Your task to perform on an android device: Search for "razer deathadder" on bestbuy.com, select the first entry, add it to the cart, then select checkout. Image 0: 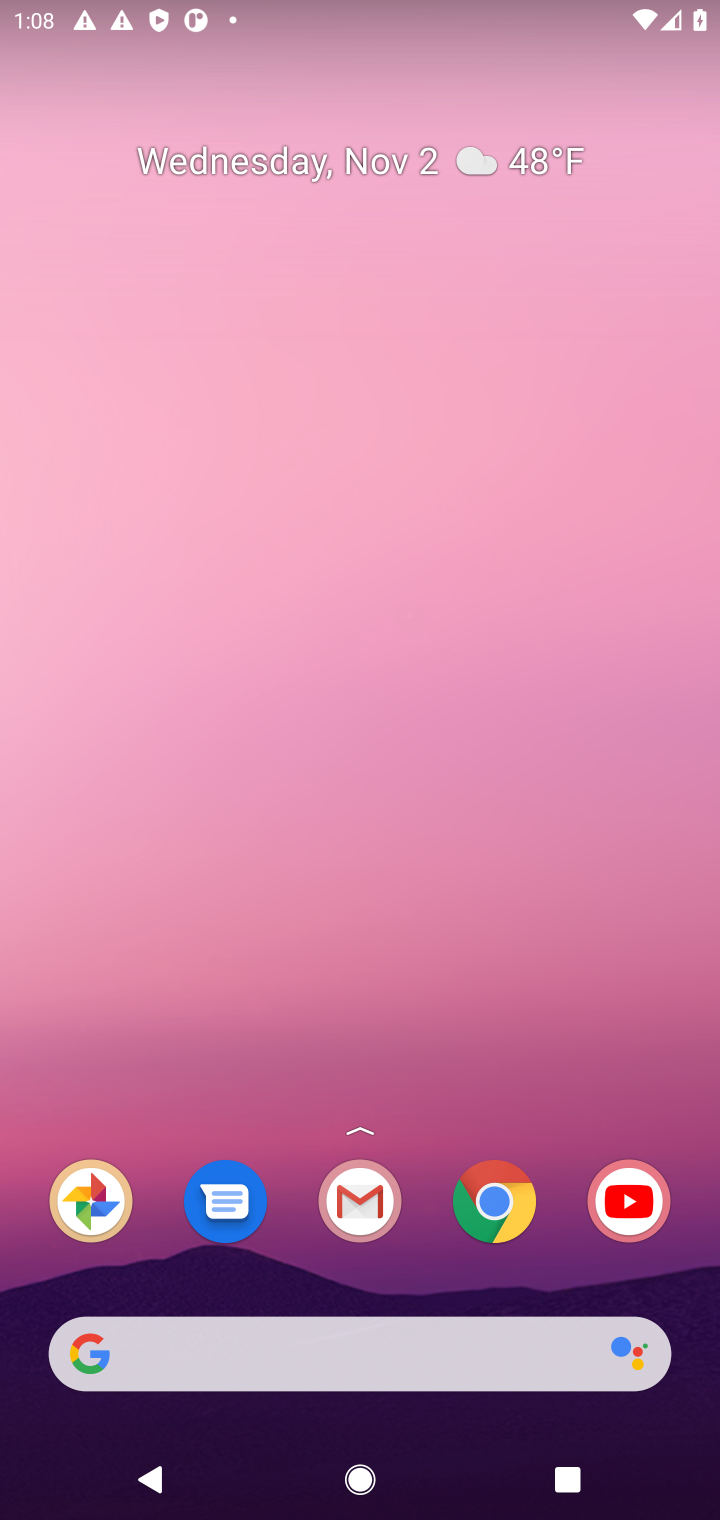
Step 0: click (520, 1221)
Your task to perform on an android device: Search for "razer deathadder" on bestbuy.com, select the first entry, add it to the cart, then select checkout. Image 1: 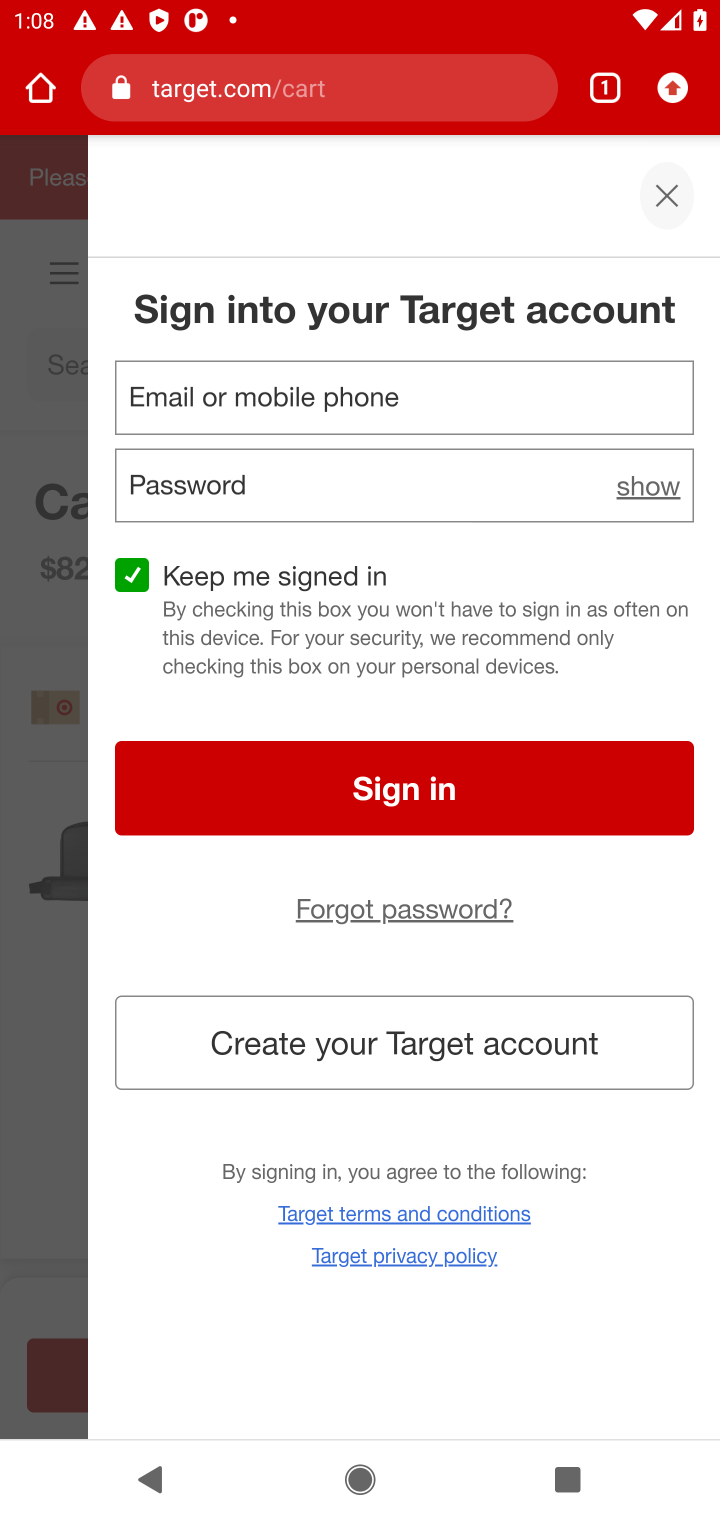
Step 1: click (392, 79)
Your task to perform on an android device: Search for "razer deathadder" on bestbuy.com, select the first entry, add it to the cart, then select checkout. Image 2: 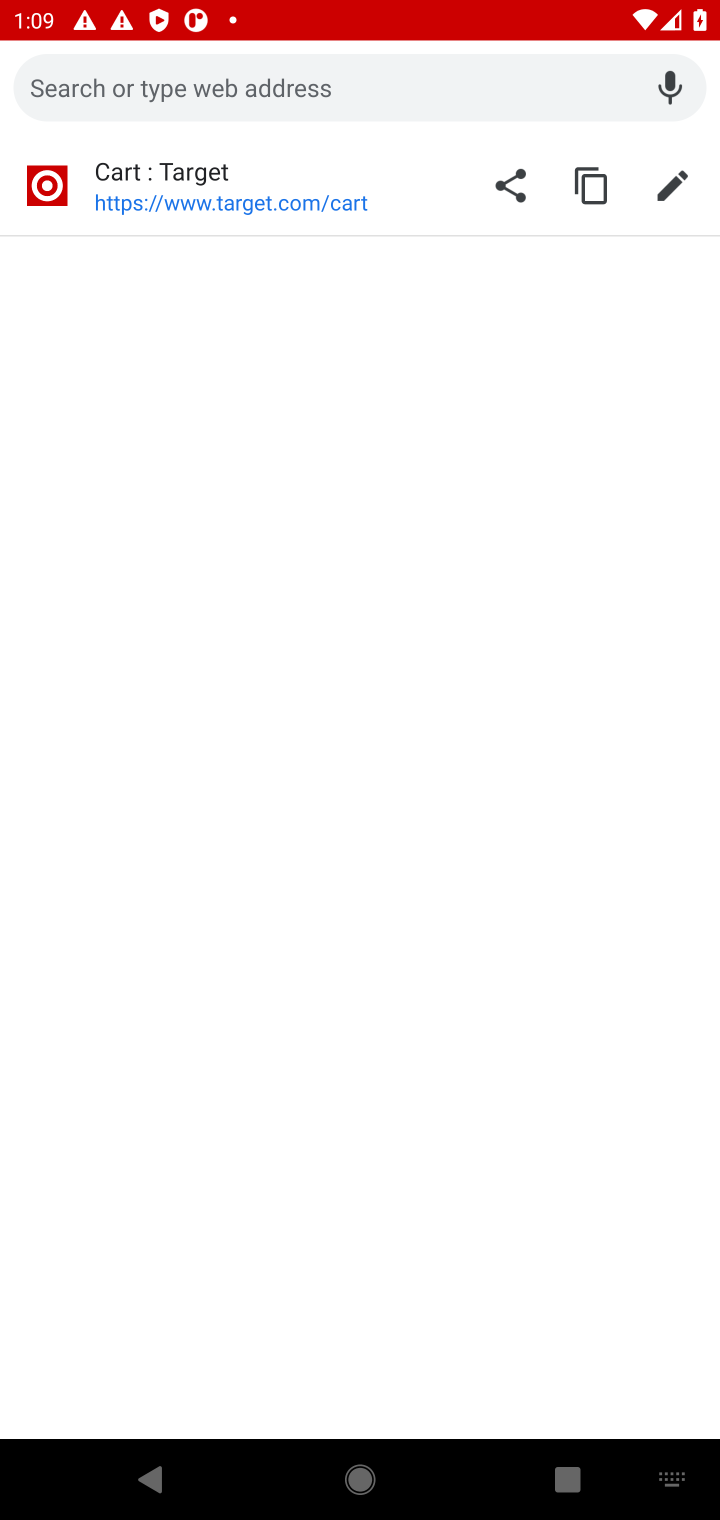
Step 2: press enter
Your task to perform on an android device: Search for "razer deathadder" on bestbuy.com, select the first entry, add it to the cart, then select checkout. Image 3: 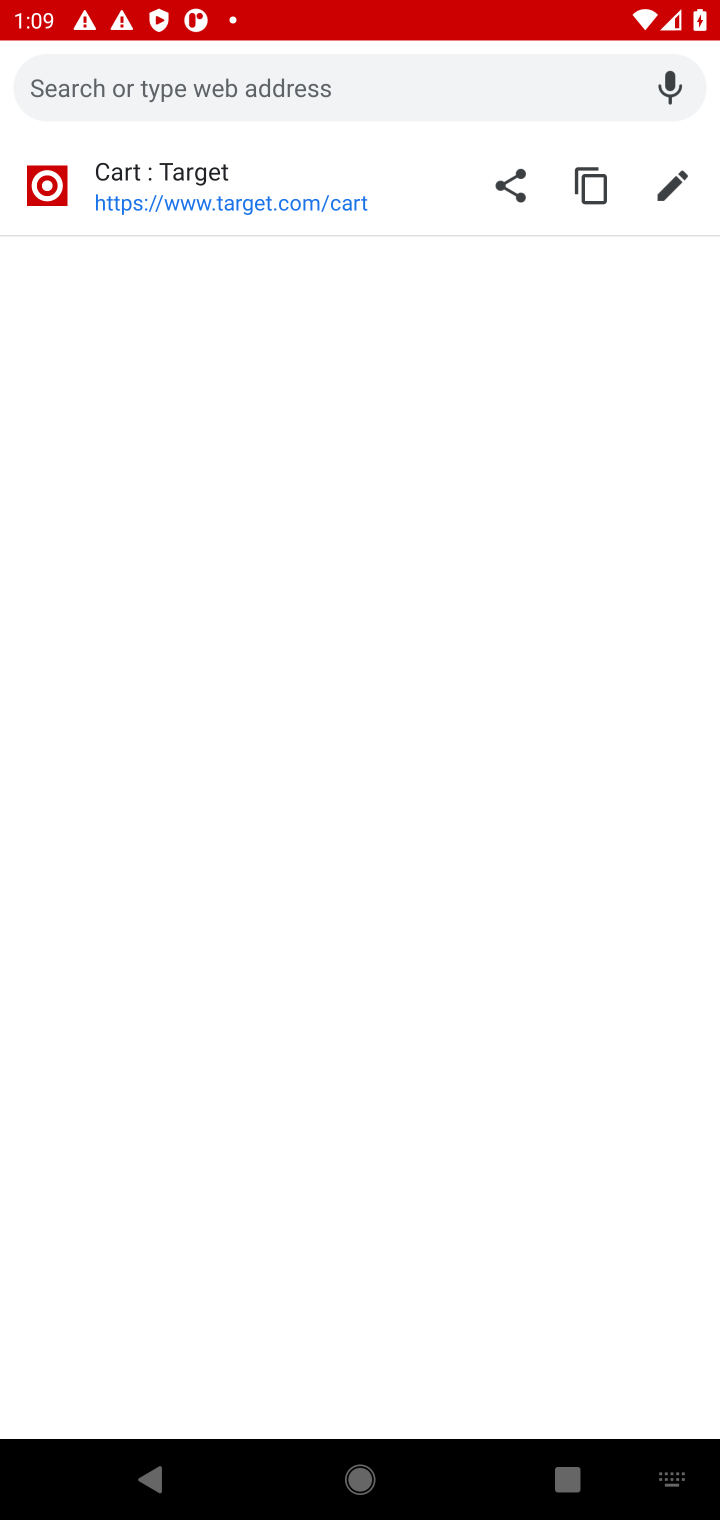
Step 3: type " bestbuy.com"
Your task to perform on an android device: Search for "razer deathadder" on bestbuy.com, select the first entry, add it to the cart, then select checkout. Image 4: 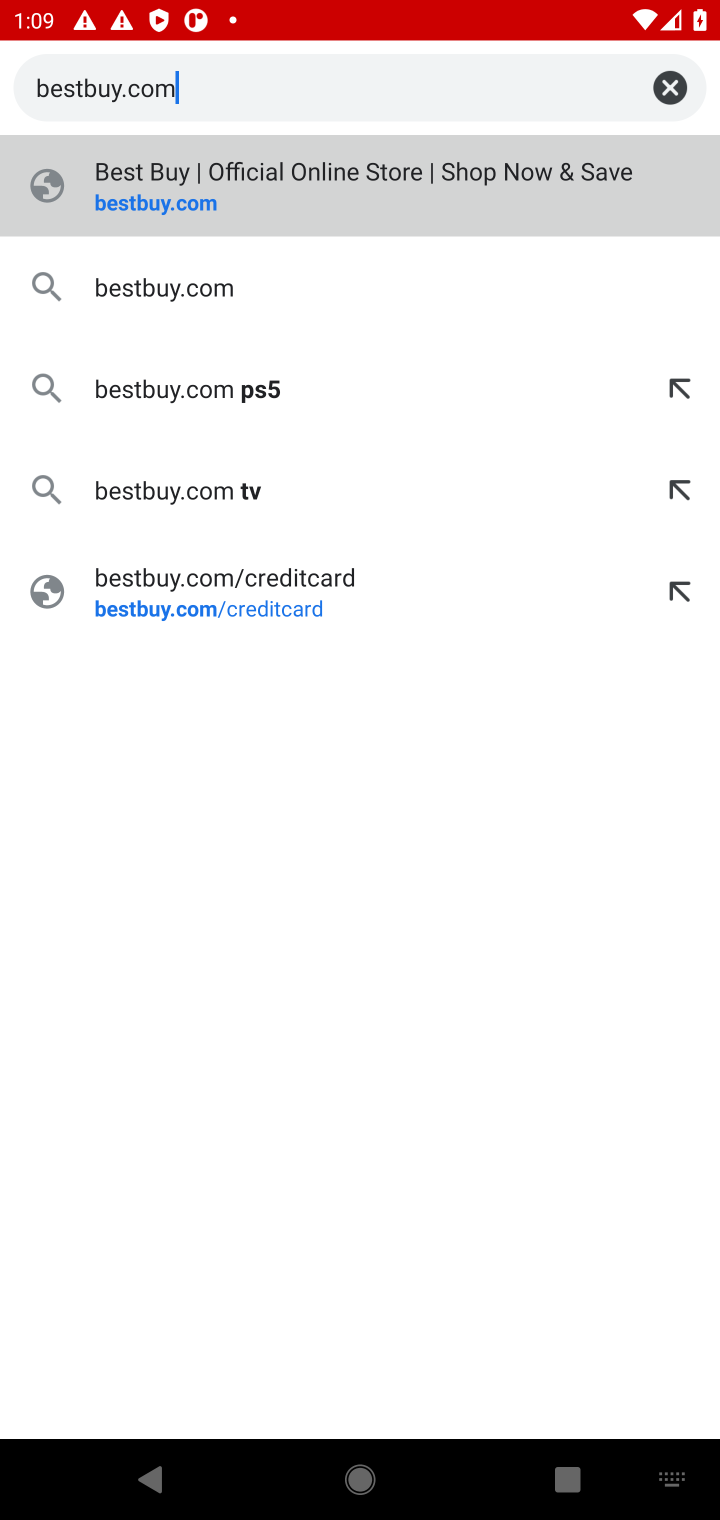
Step 4: click (198, 295)
Your task to perform on an android device: Search for "razer deathadder" on bestbuy.com, select the first entry, add it to the cart, then select checkout. Image 5: 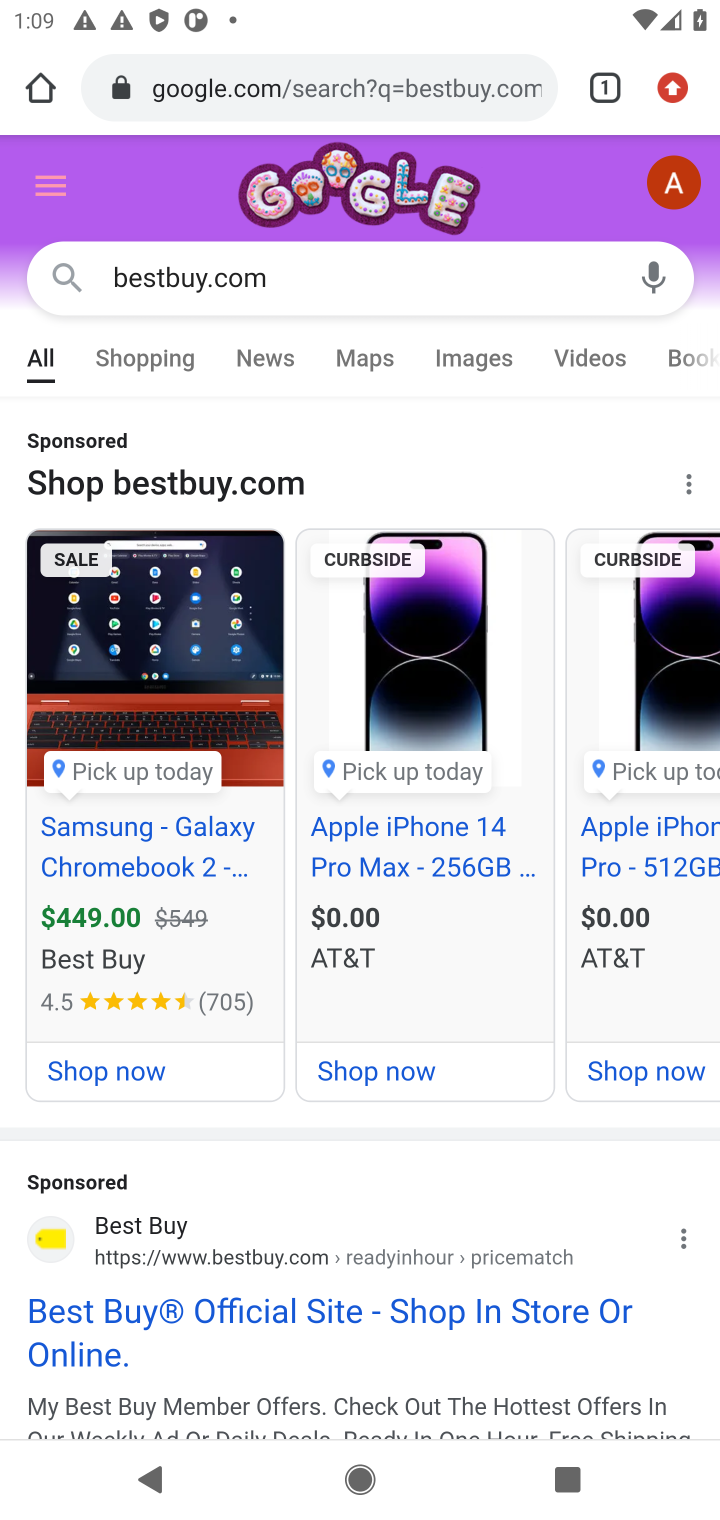
Step 5: click (122, 1214)
Your task to perform on an android device: Search for "razer deathadder" on bestbuy.com, select the first entry, add it to the cart, then select checkout. Image 6: 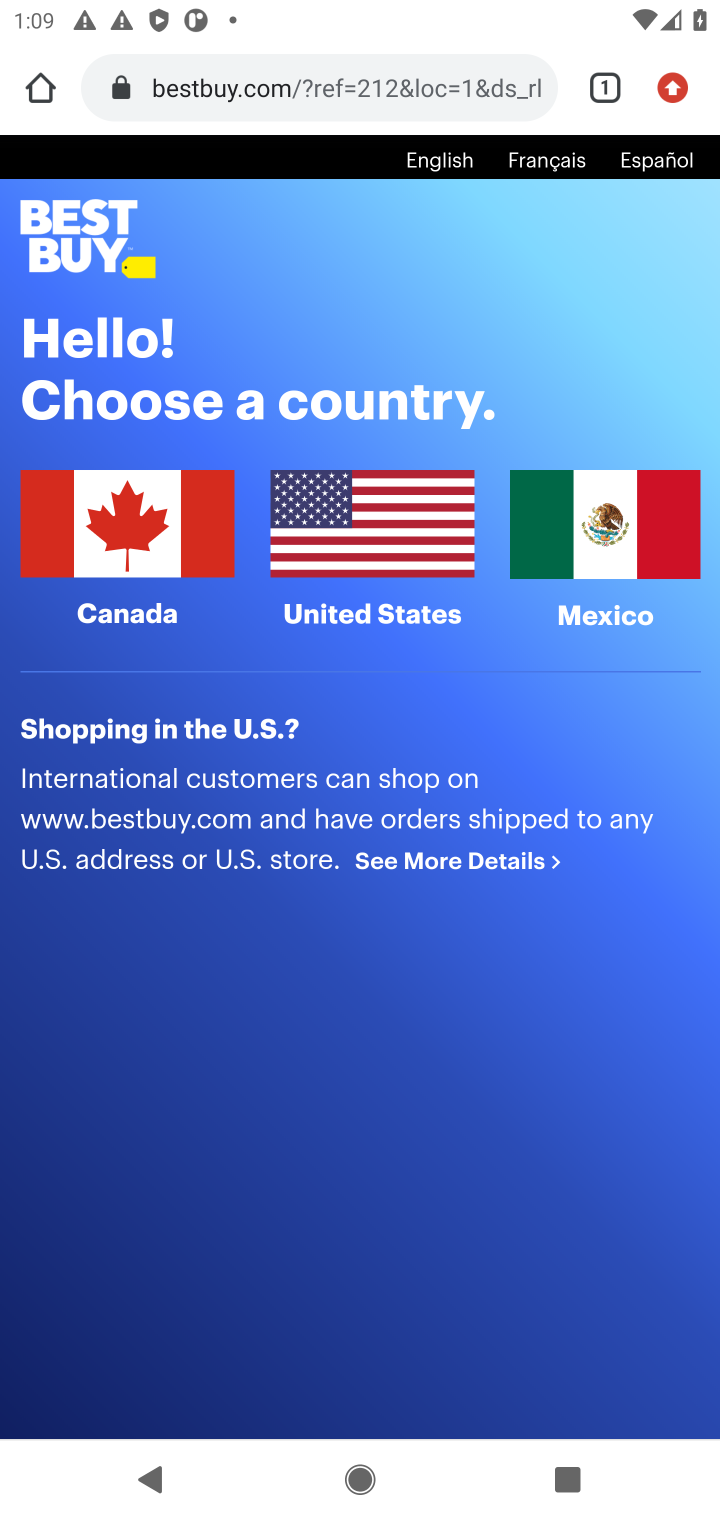
Step 6: click (335, 544)
Your task to perform on an android device: Search for "razer deathadder" on bestbuy.com, select the first entry, add it to the cart, then select checkout. Image 7: 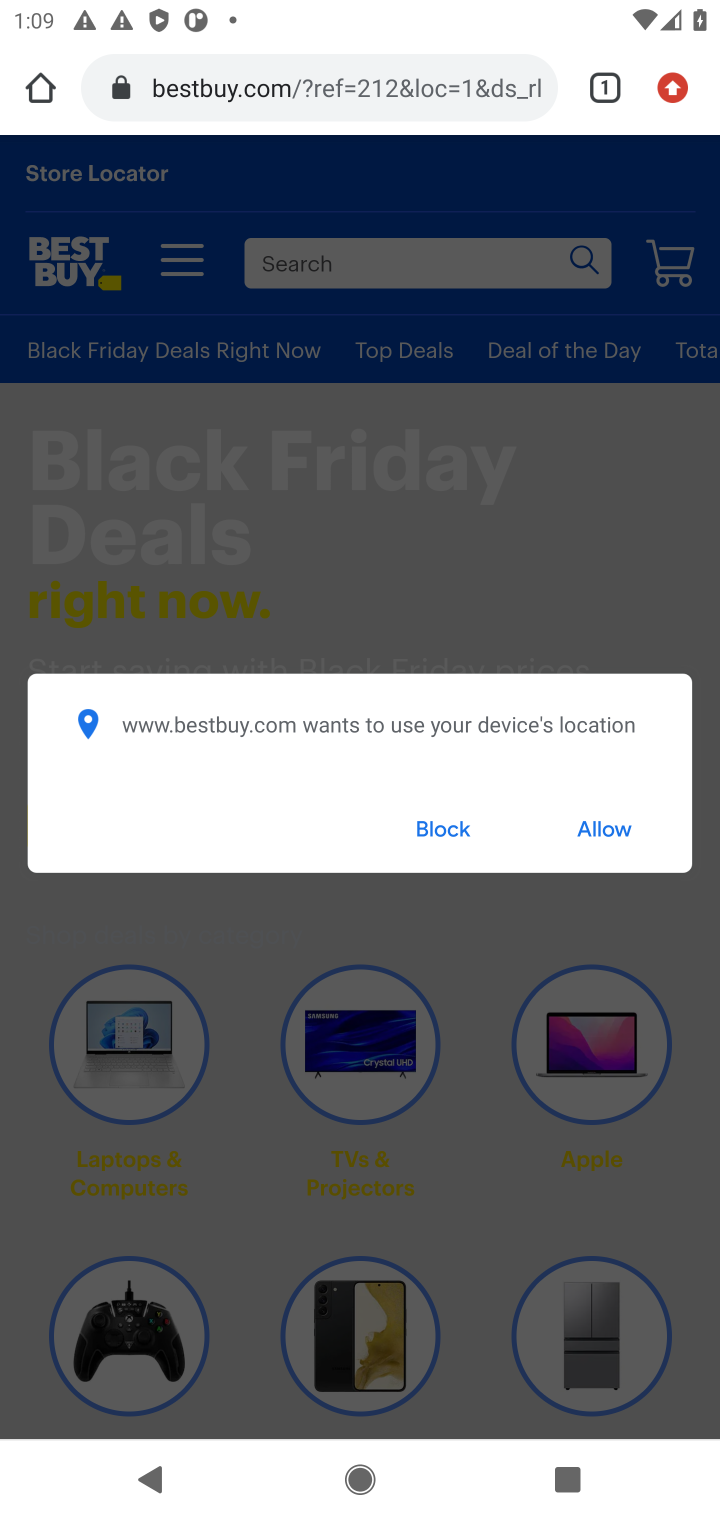
Step 7: click (463, 834)
Your task to perform on an android device: Search for "razer deathadder" on bestbuy.com, select the first entry, add it to the cart, then select checkout. Image 8: 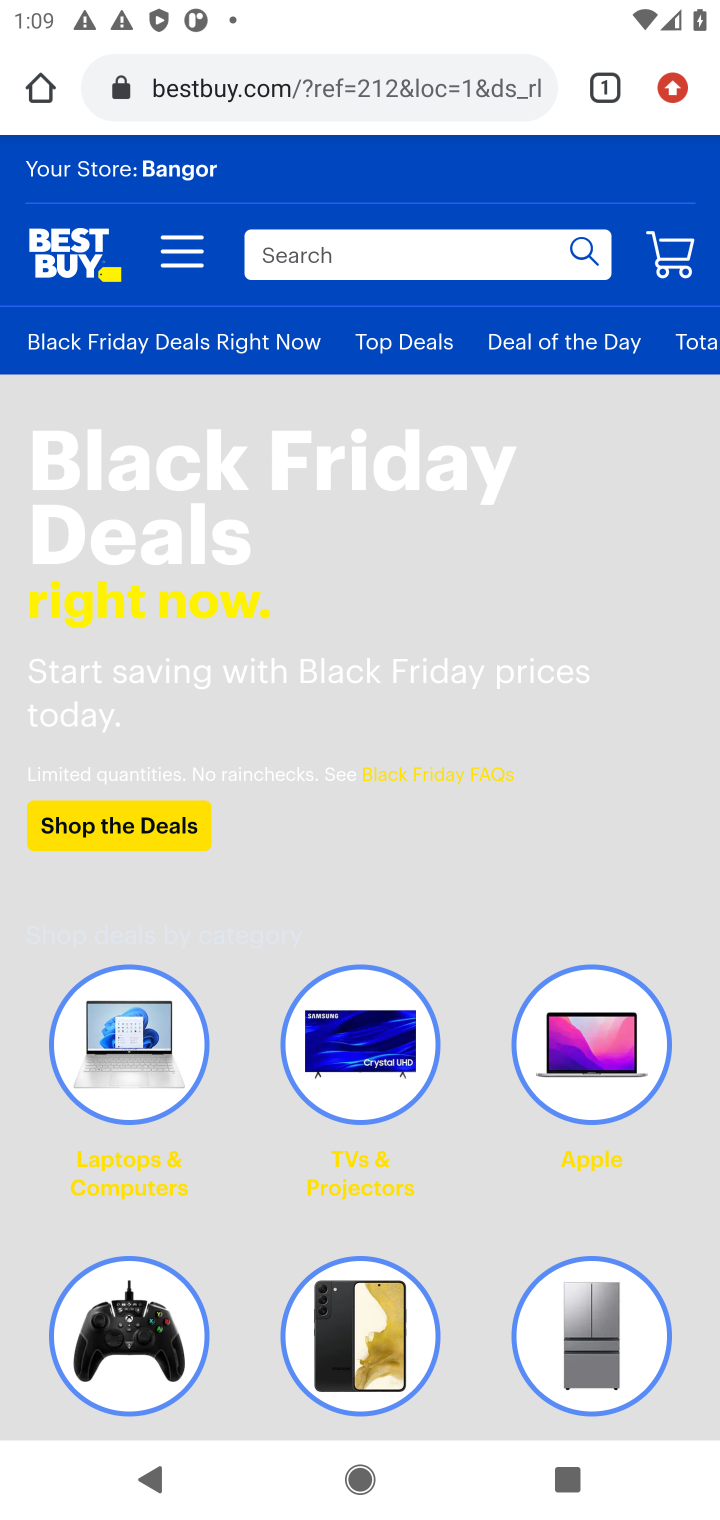
Step 8: click (381, 272)
Your task to perform on an android device: Search for "razer deathadder" on bestbuy.com, select the first entry, add it to the cart, then select checkout. Image 9: 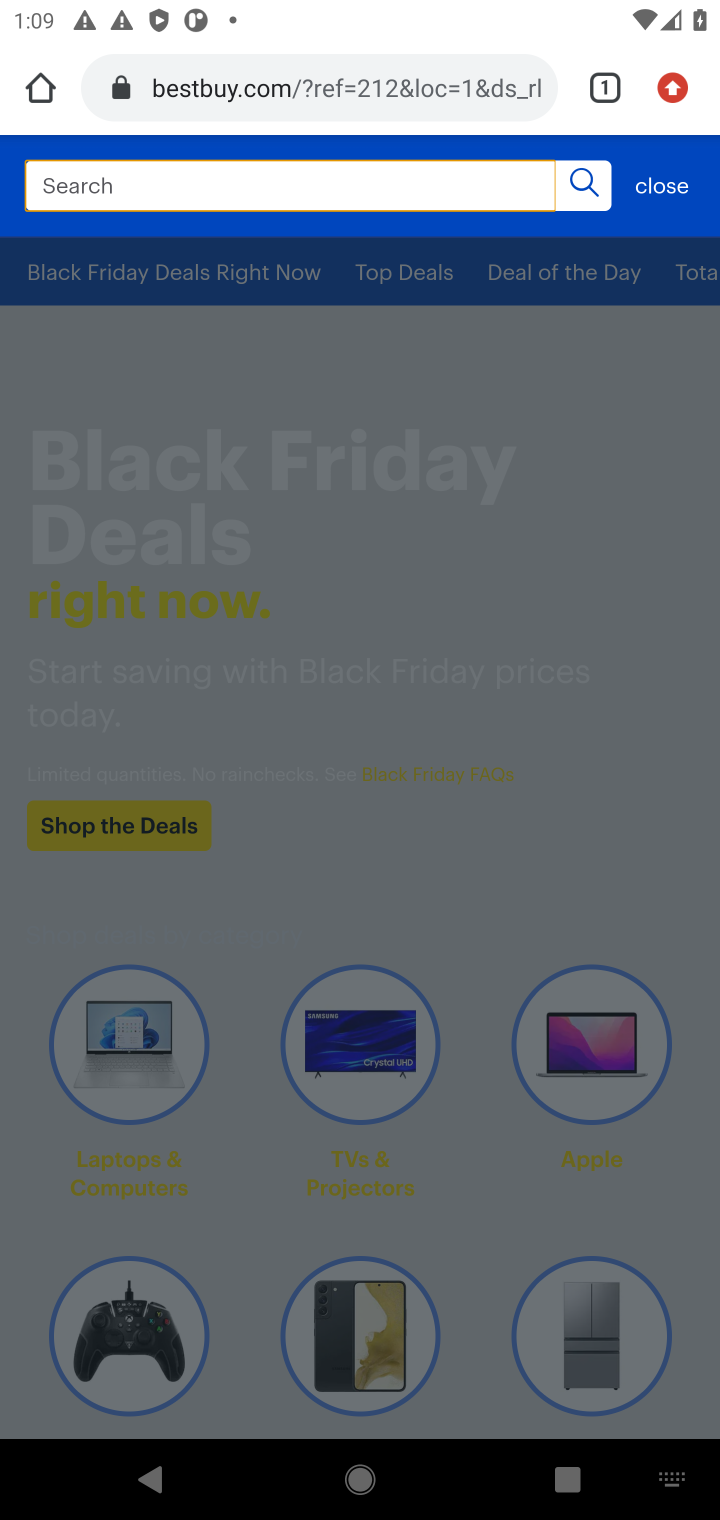
Step 9: press enter
Your task to perform on an android device: Search for "razer deathadder" on bestbuy.com, select the first entry, add it to the cart, then select checkout. Image 10: 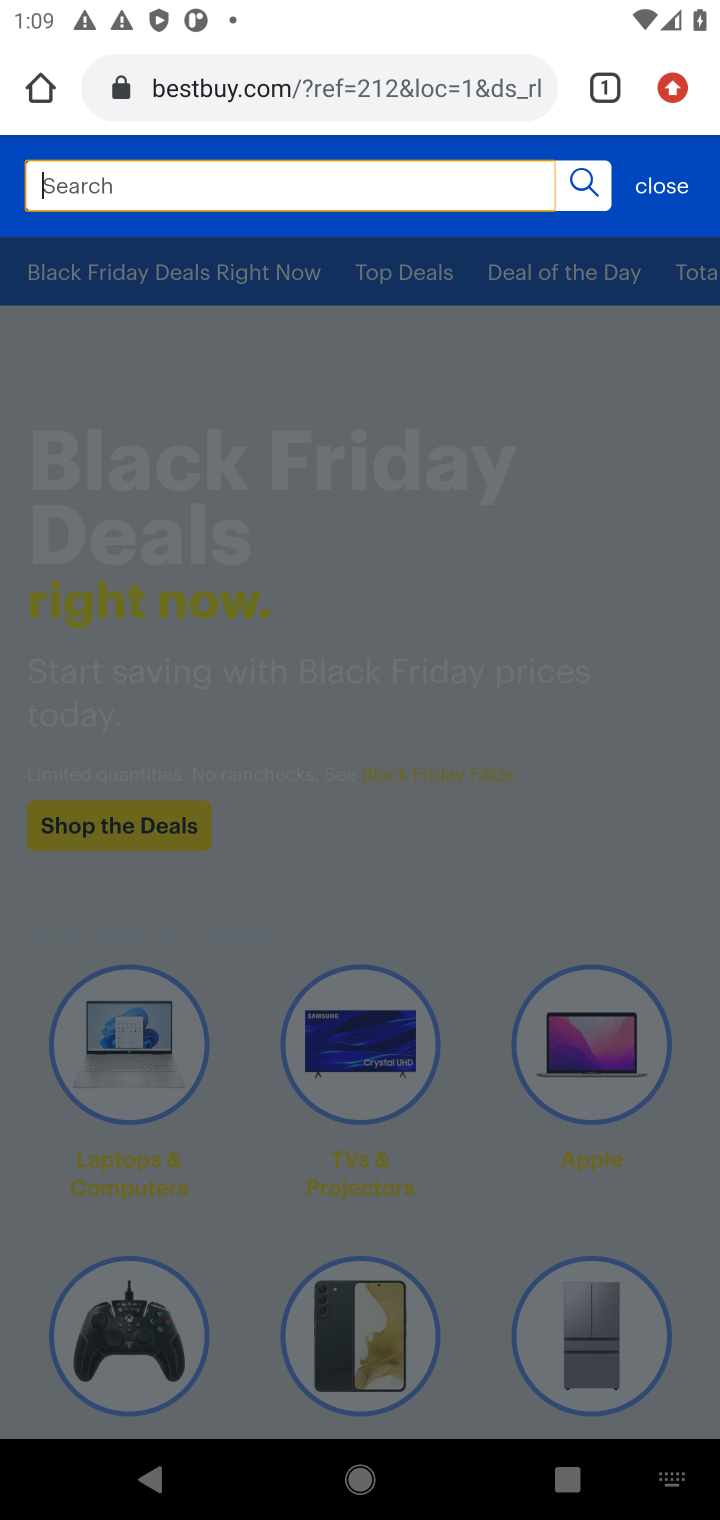
Step 10: type "razer deathadder"
Your task to perform on an android device: Search for "razer deathadder" on bestbuy.com, select the first entry, add it to the cart, then select checkout. Image 11: 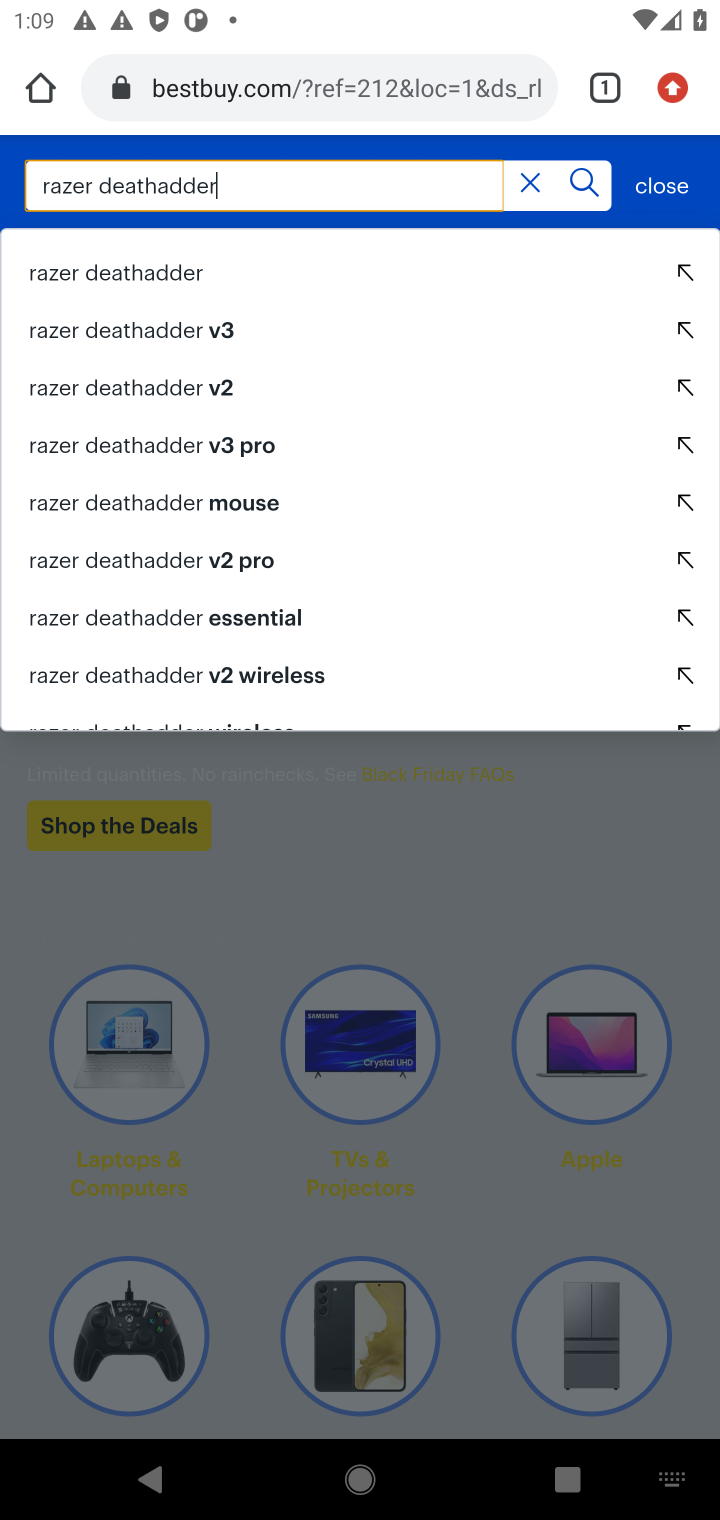
Step 11: click (107, 264)
Your task to perform on an android device: Search for "razer deathadder" on bestbuy.com, select the first entry, add it to the cart, then select checkout. Image 12: 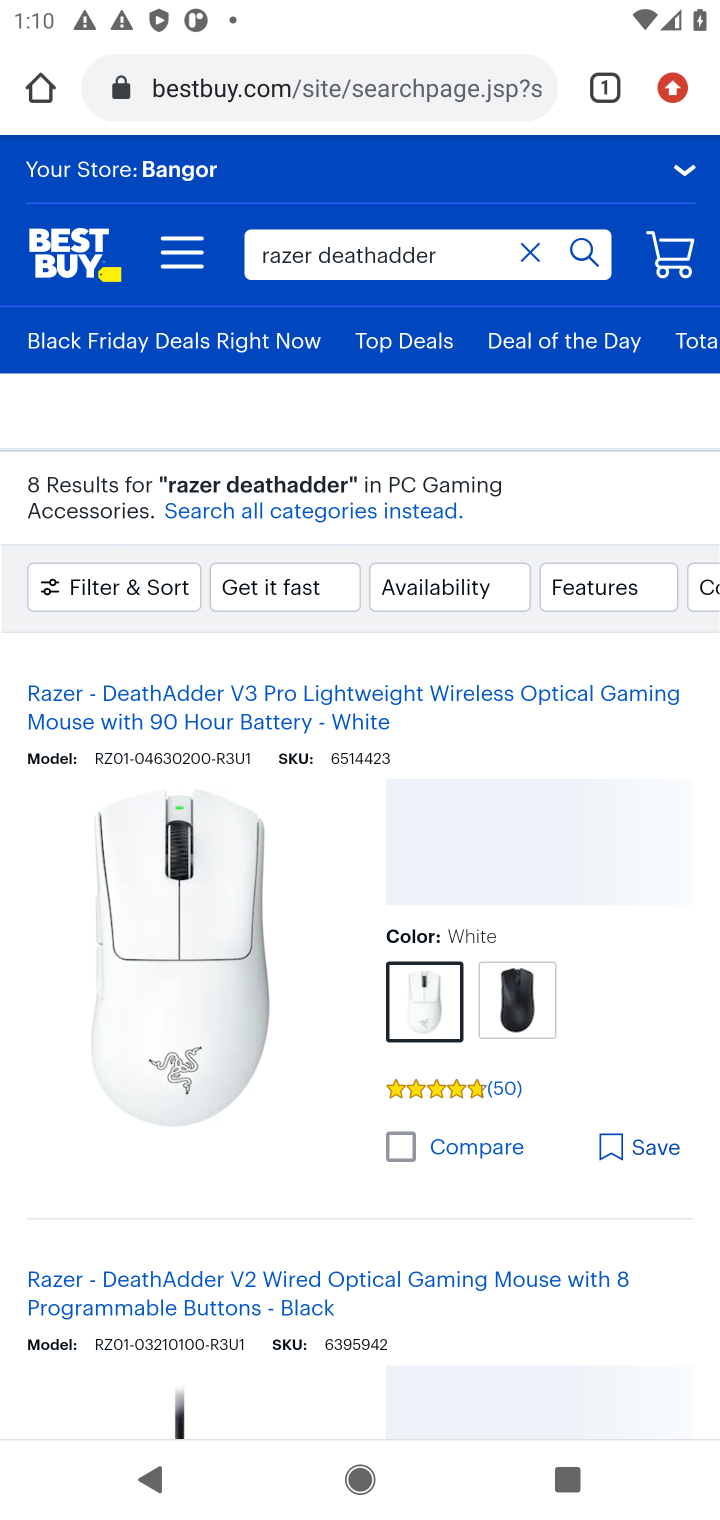
Step 12: click (294, 710)
Your task to perform on an android device: Search for "razer deathadder" on bestbuy.com, select the first entry, add it to the cart, then select checkout. Image 13: 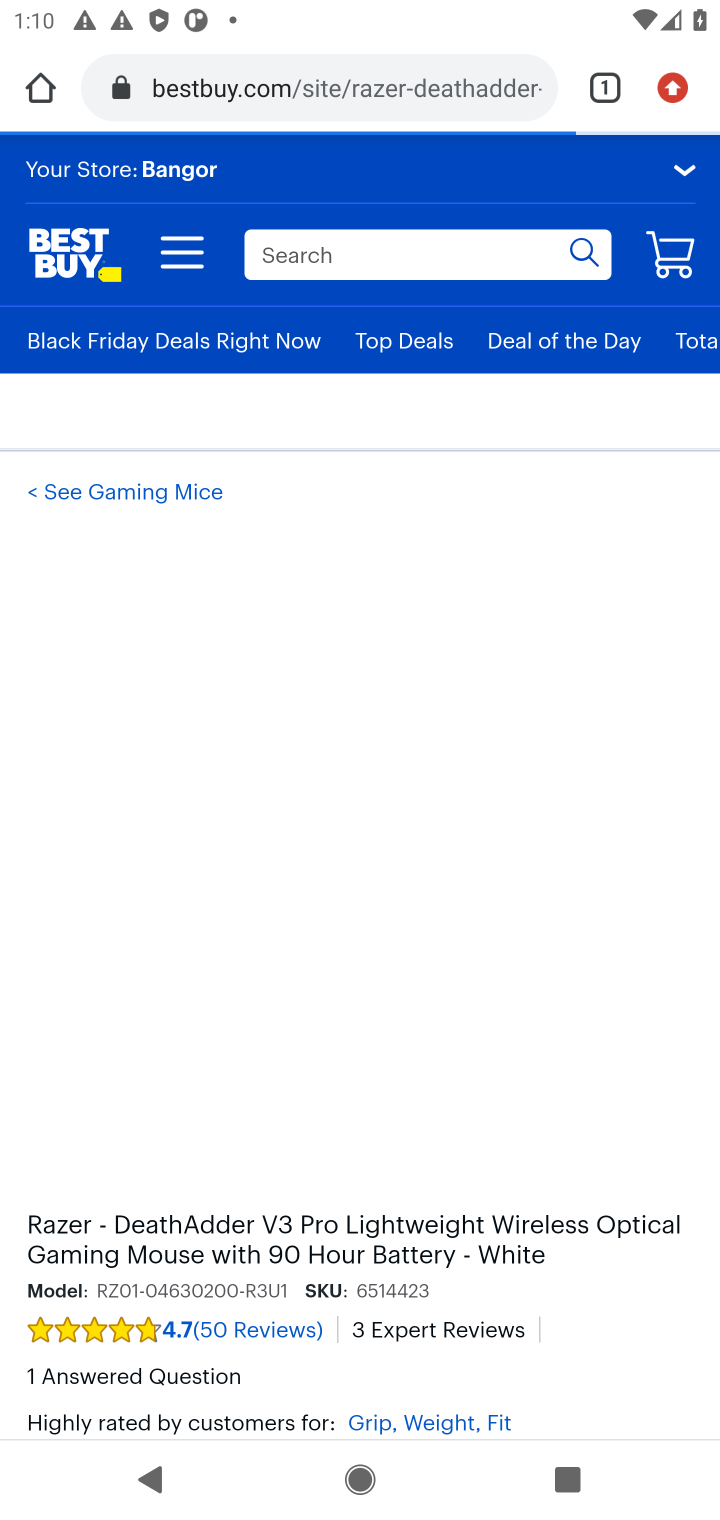
Step 13: drag from (468, 1164) to (437, 525)
Your task to perform on an android device: Search for "razer deathadder" on bestbuy.com, select the first entry, add it to the cart, then select checkout. Image 14: 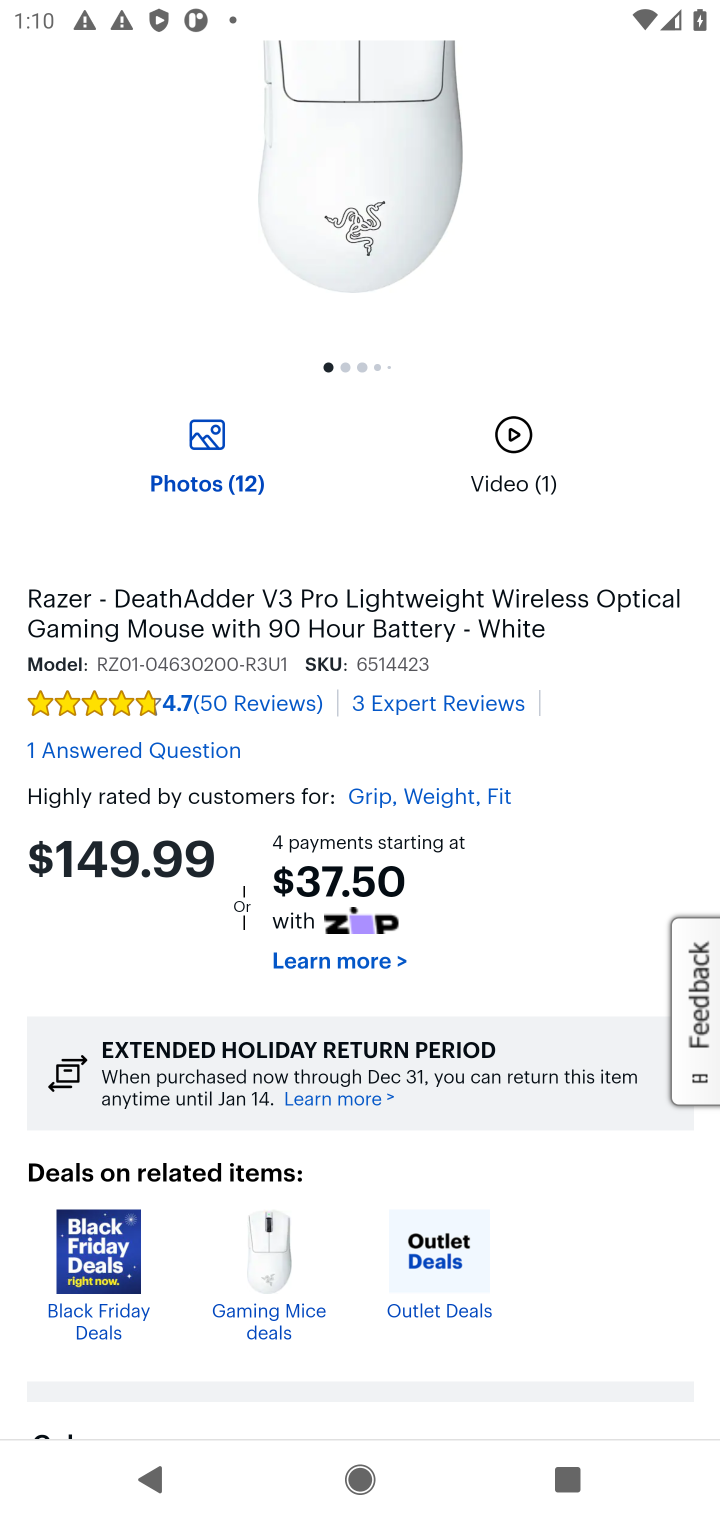
Step 14: drag from (577, 1015) to (556, 577)
Your task to perform on an android device: Search for "razer deathadder" on bestbuy.com, select the first entry, add it to the cart, then select checkout. Image 15: 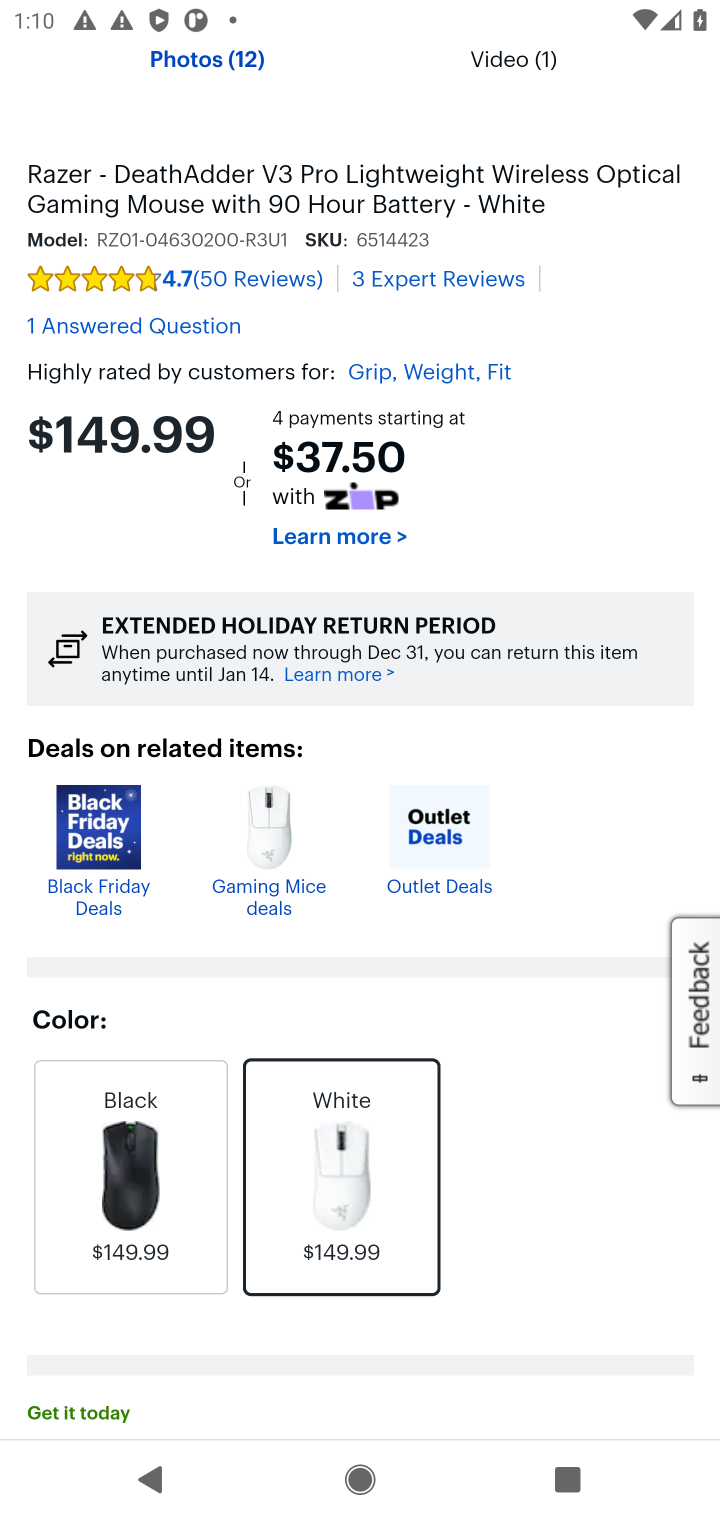
Step 15: drag from (506, 877) to (523, 715)
Your task to perform on an android device: Search for "razer deathadder" on bestbuy.com, select the first entry, add it to the cart, then select checkout. Image 16: 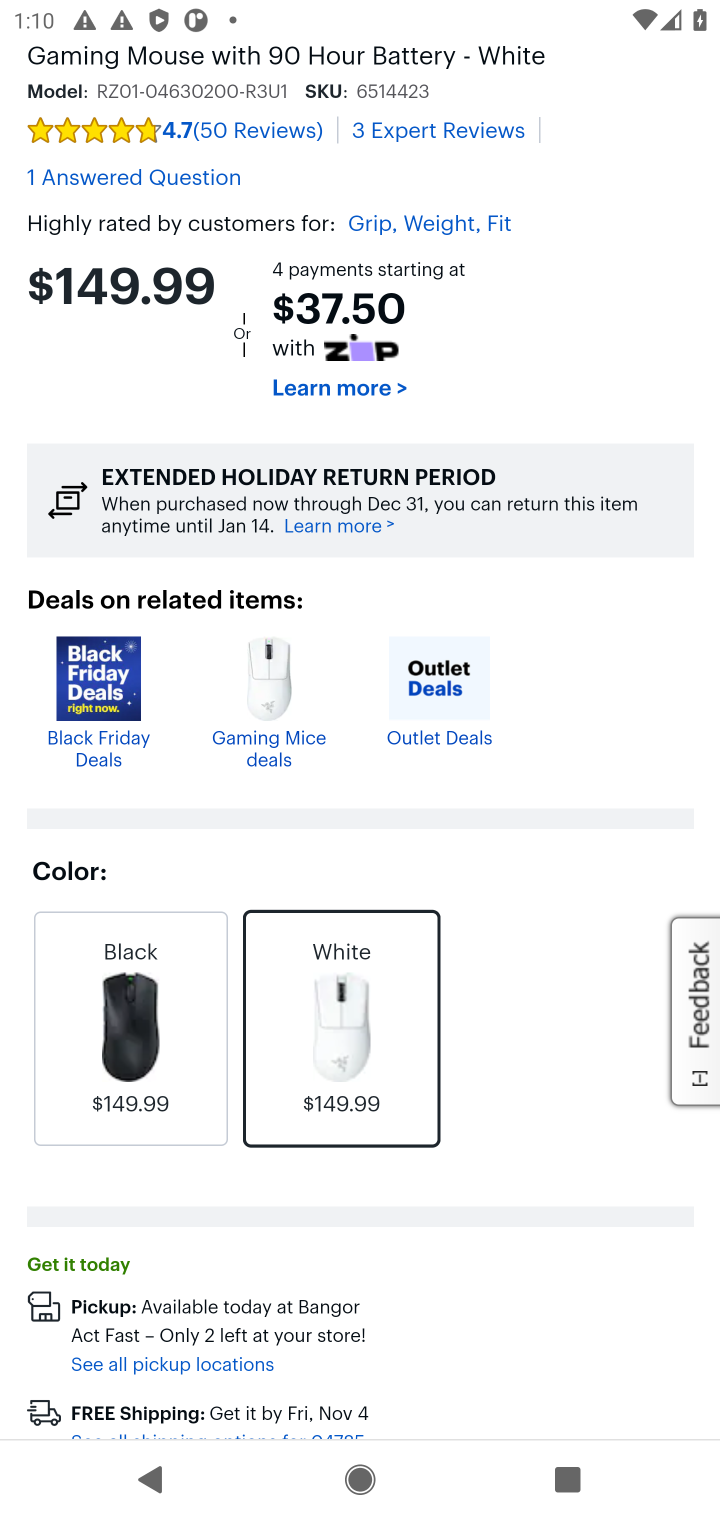
Step 16: drag from (532, 607) to (548, 519)
Your task to perform on an android device: Search for "razer deathadder" on bestbuy.com, select the first entry, add it to the cart, then select checkout. Image 17: 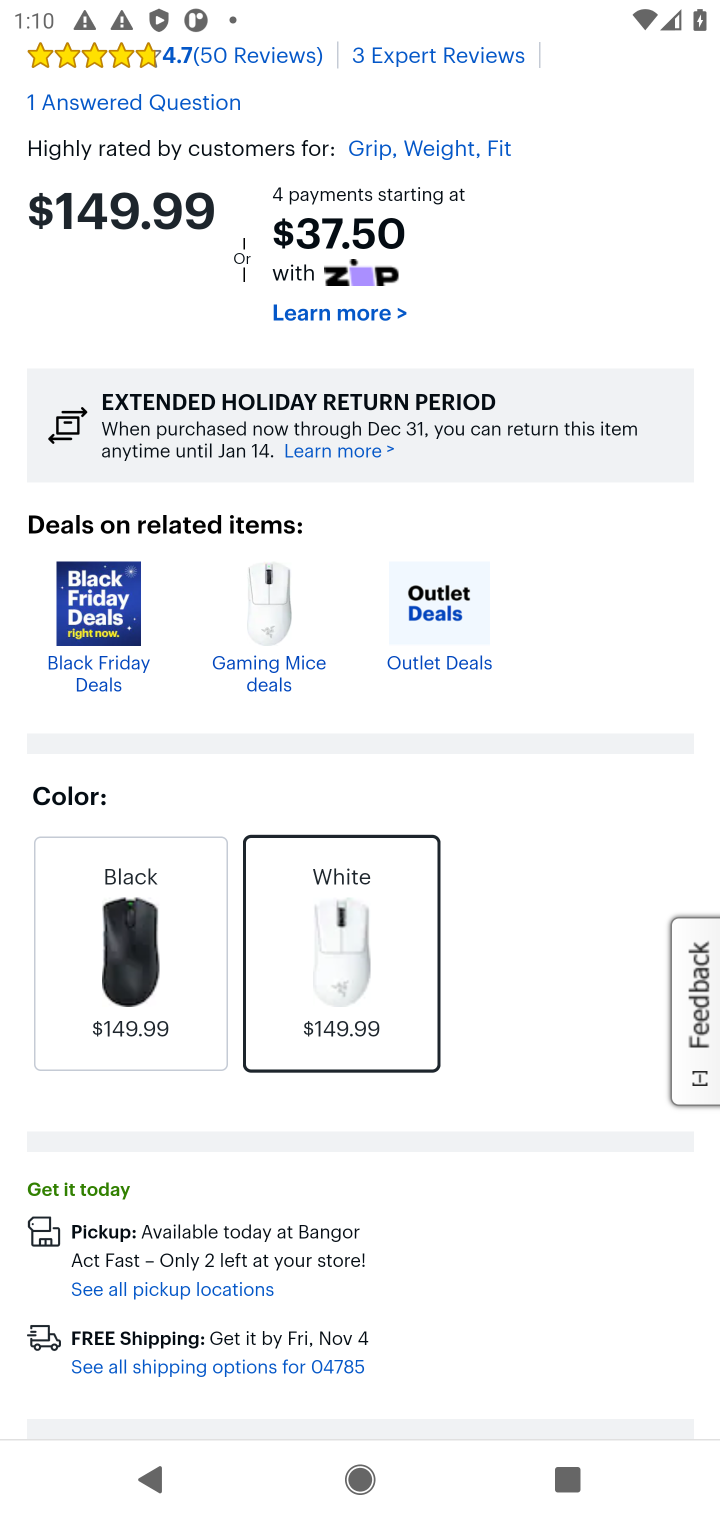
Step 17: drag from (602, 922) to (581, 606)
Your task to perform on an android device: Search for "razer deathadder" on bestbuy.com, select the first entry, add it to the cart, then select checkout. Image 18: 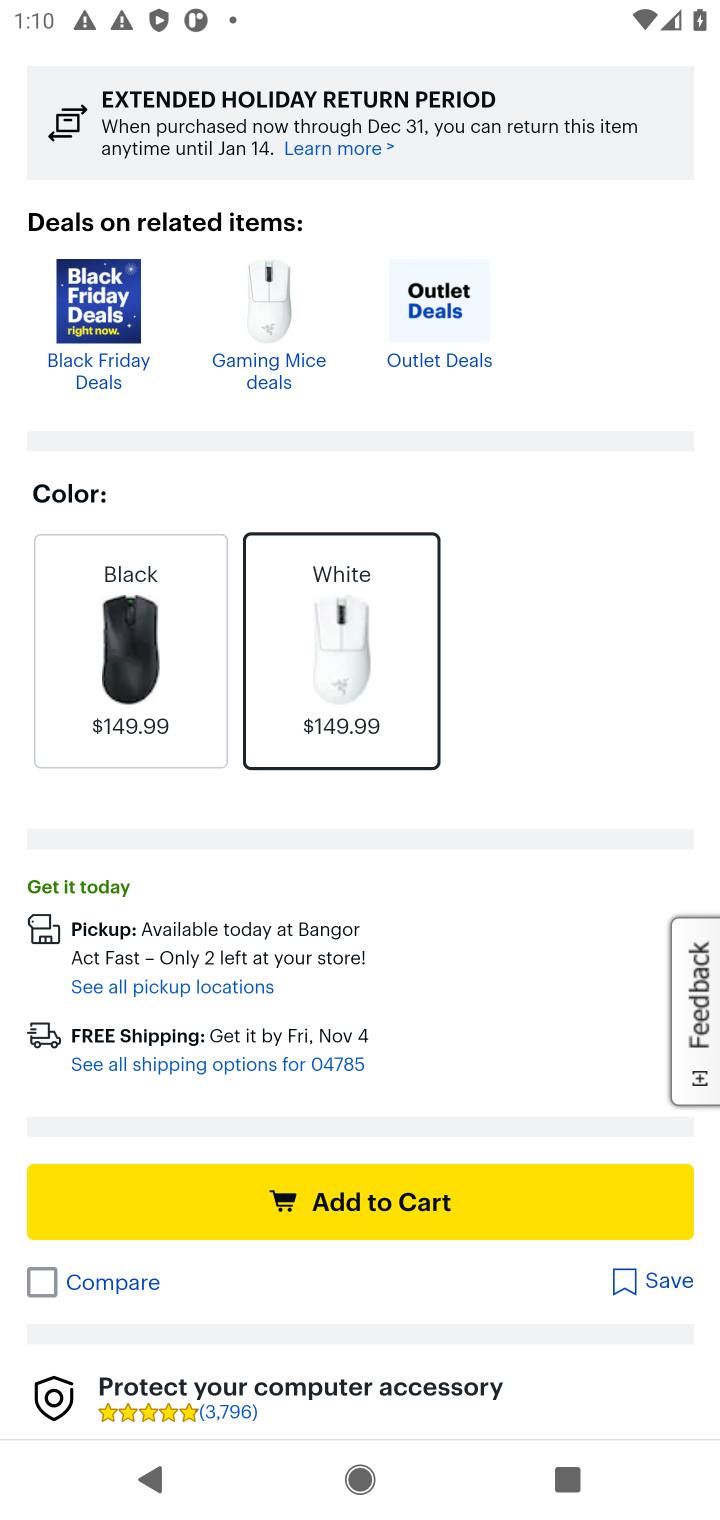
Step 18: click (476, 1215)
Your task to perform on an android device: Search for "razer deathadder" on bestbuy.com, select the first entry, add it to the cart, then select checkout. Image 19: 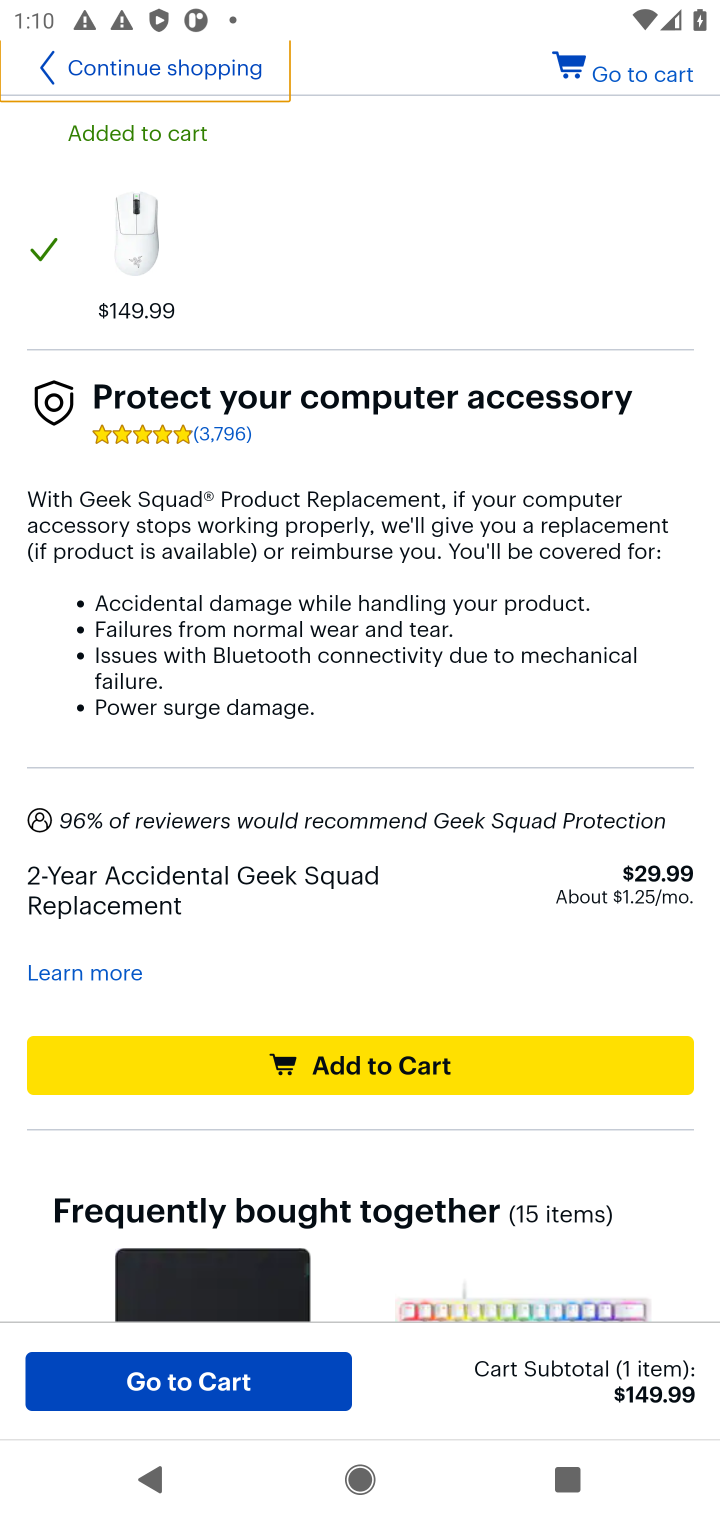
Step 19: click (391, 1060)
Your task to perform on an android device: Search for "razer deathadder" on bestbuy.com, select the first entry, add it to the cart, then select checkout. Image 20: 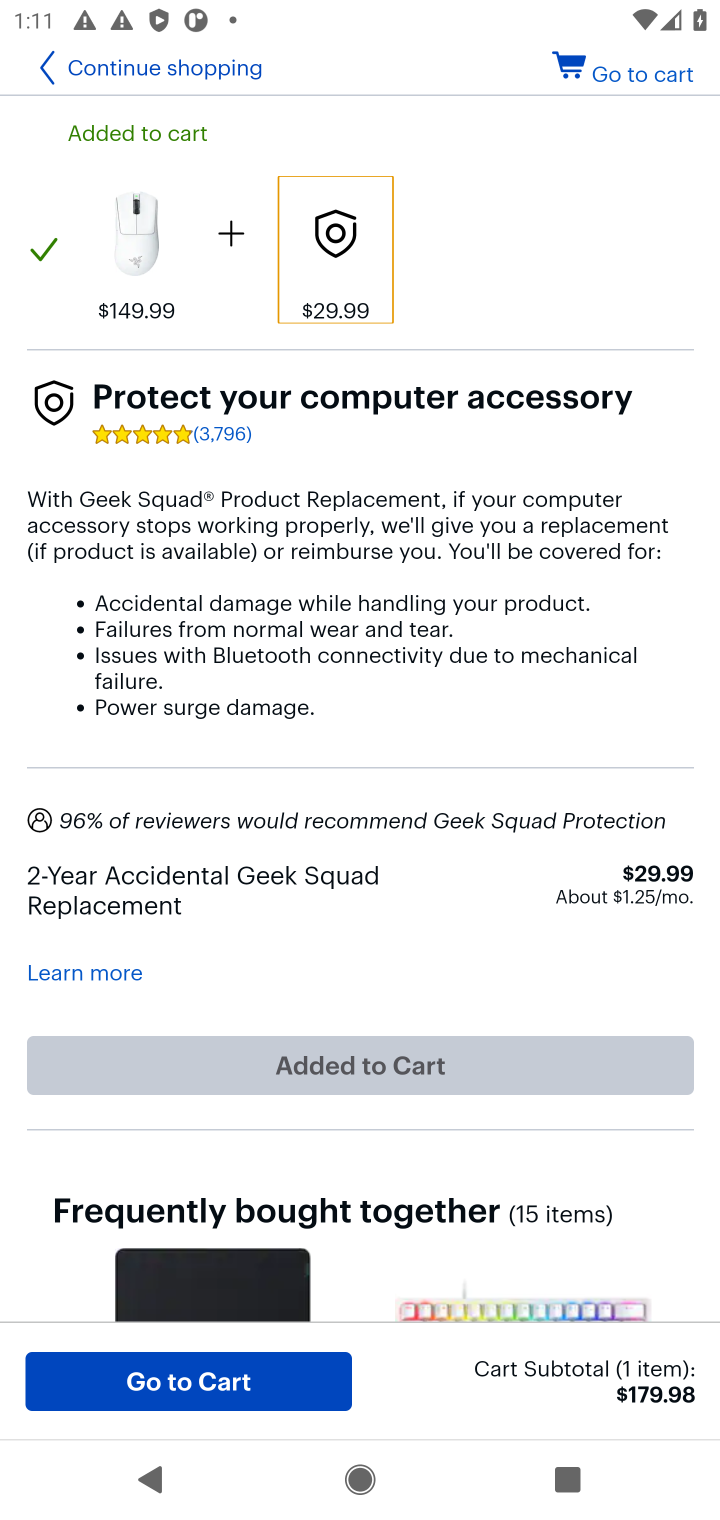
Step 20: drag from (510, 232) to (505, 334)
Your task to perform on an android device: Search for "razer deathadder" on bestbuy.com, select the first entry, add it to the cart, then select checkout. Image 21: 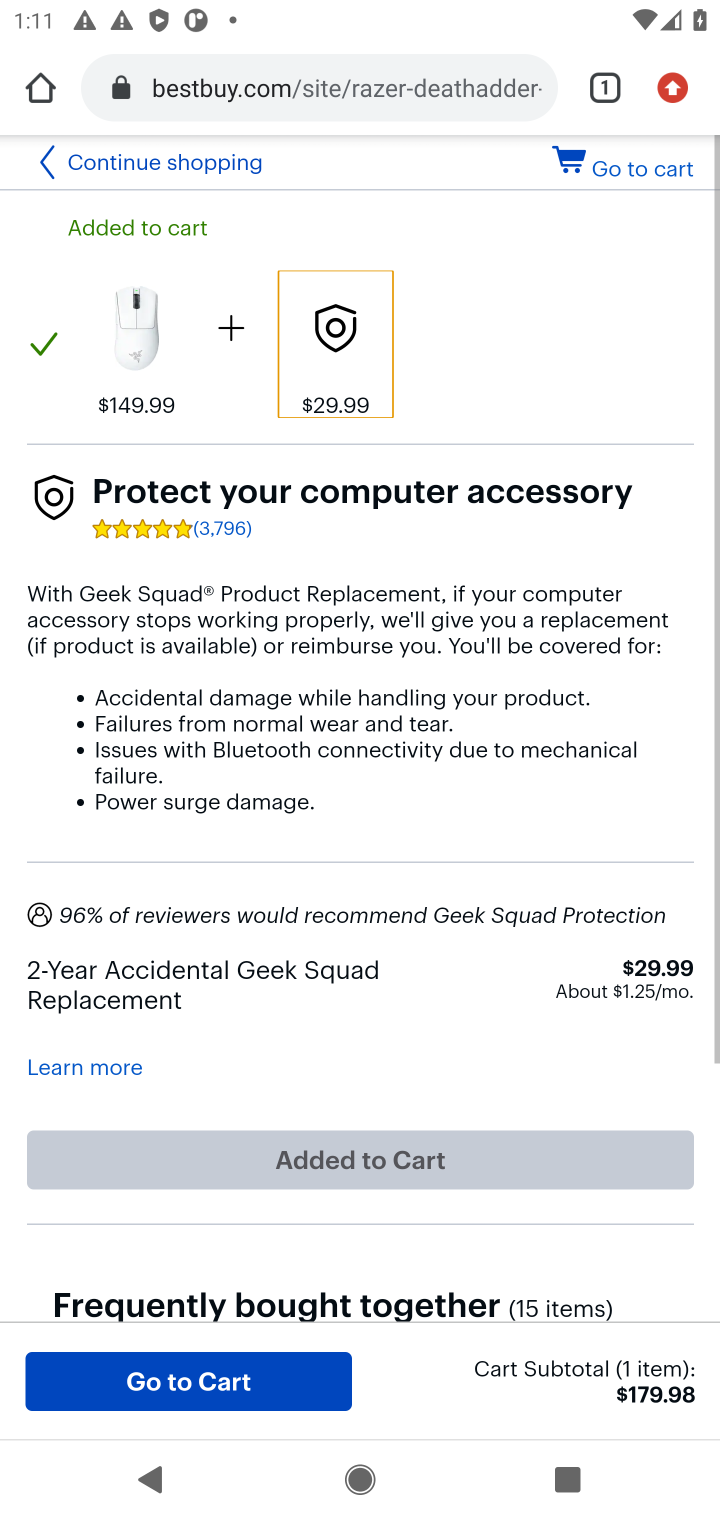
Step 21: drag from (532, 959) to (549, 678)
Your task to perform on an android device: Search for "razer deathadder" on bestbuy.com, select the first entry, add it to the cart, then select checkout. Image 22: 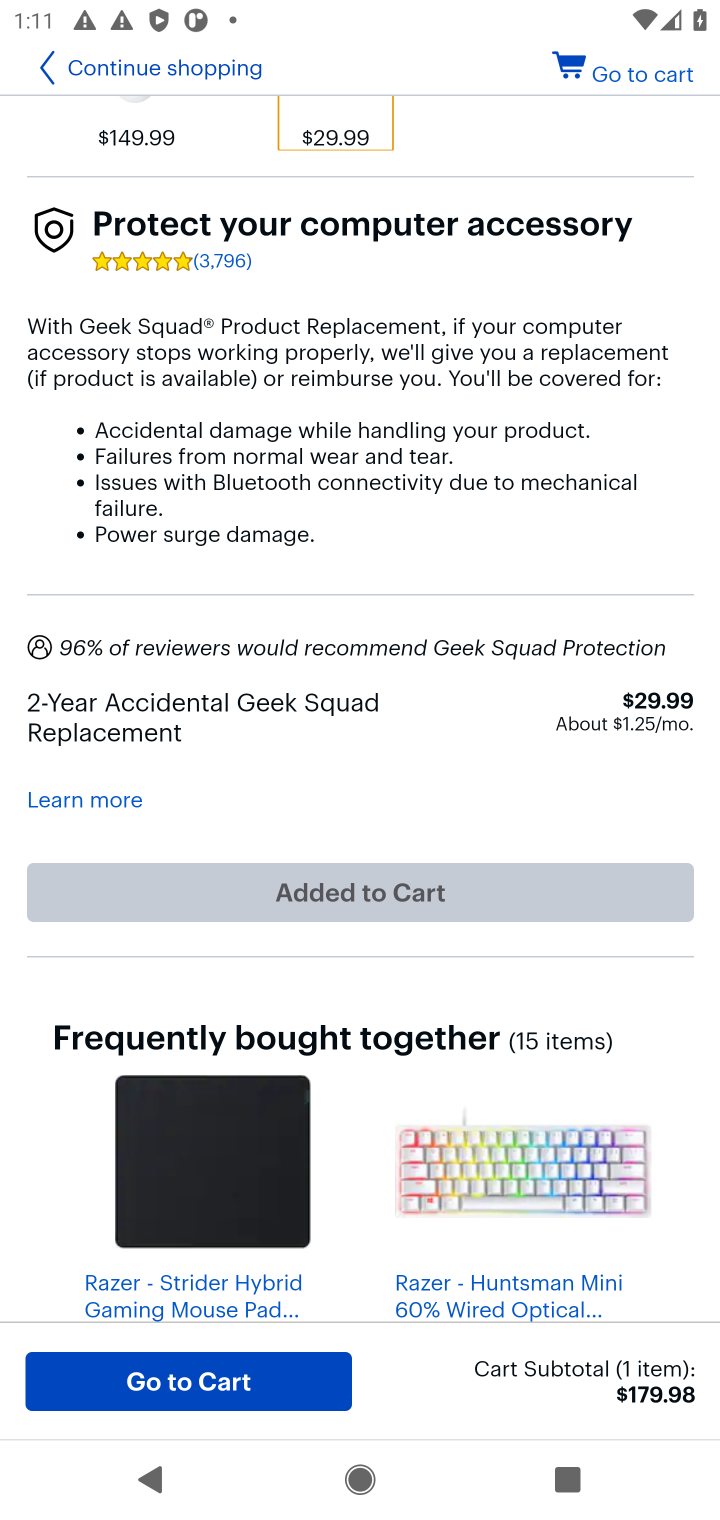
Step 22: click (271, 1373)
Your task to perform on an android device: Search for "razer deathadder" on bestbuy.com, select the first entry, add it to the cart, then select checkout. Image 23: 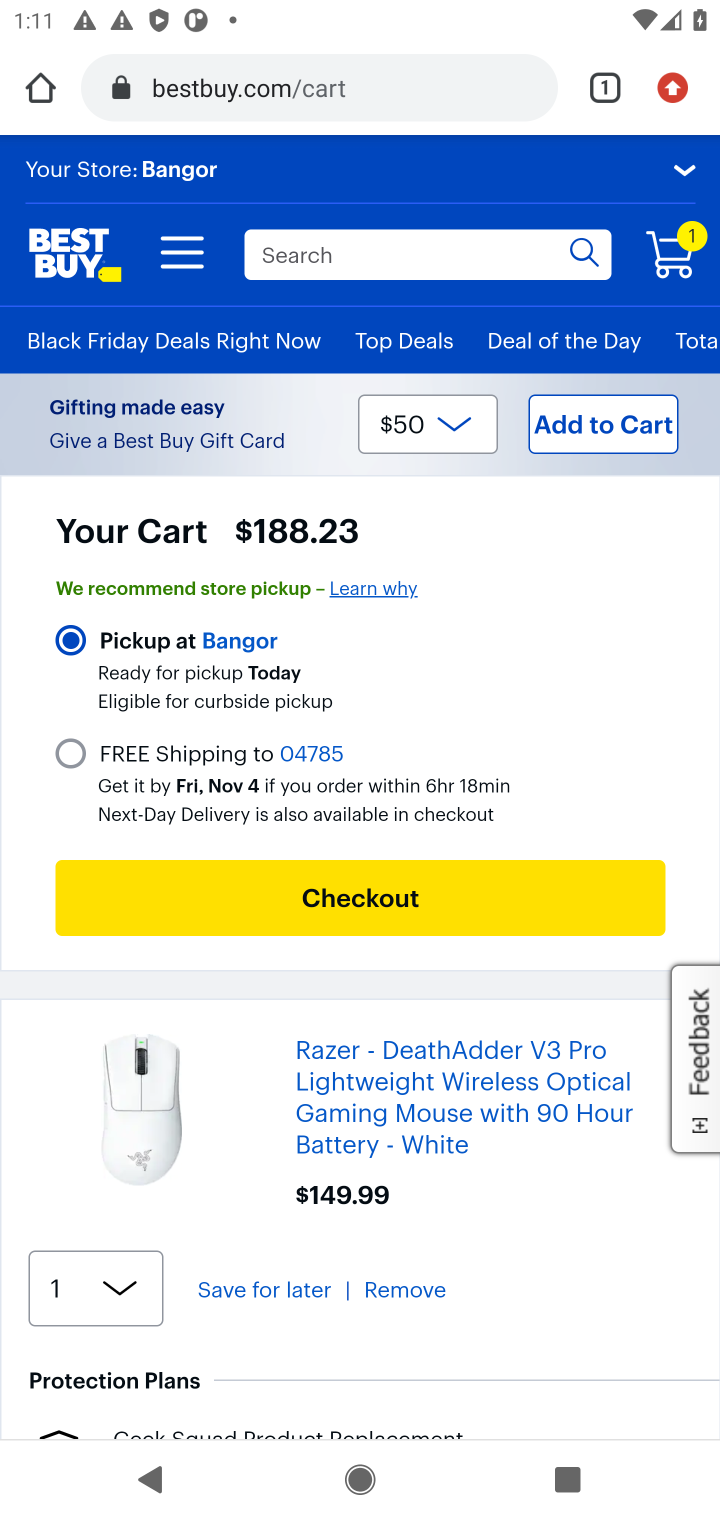
Step 23: click (451, 907)
Your task to perform on an android device: Search for "razer deathadder" on bestbuy.com, select the first entry, add it to the cart, then select checkout. Image 24: 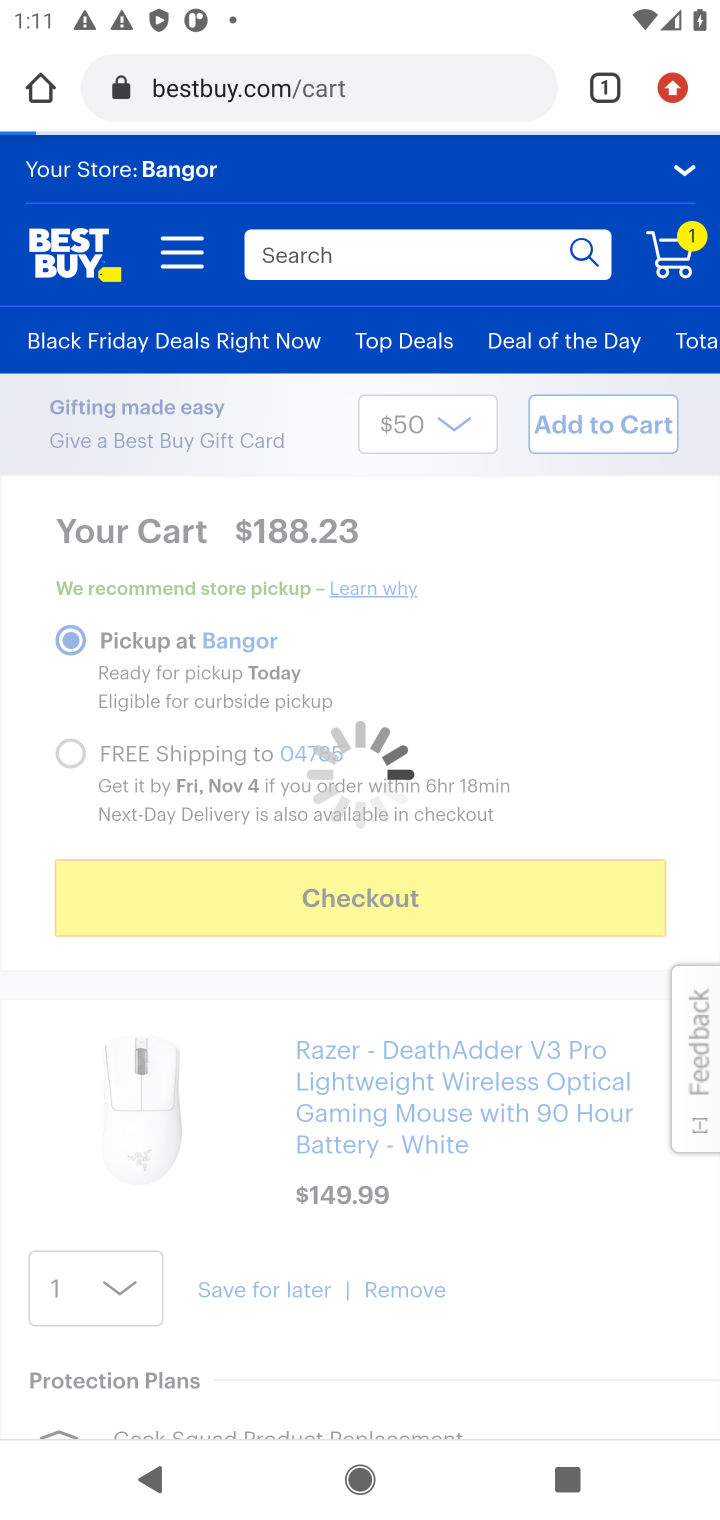
Step 24: task complete